Your task to perform on an android device: Search for good Korean restaurants Image 0: 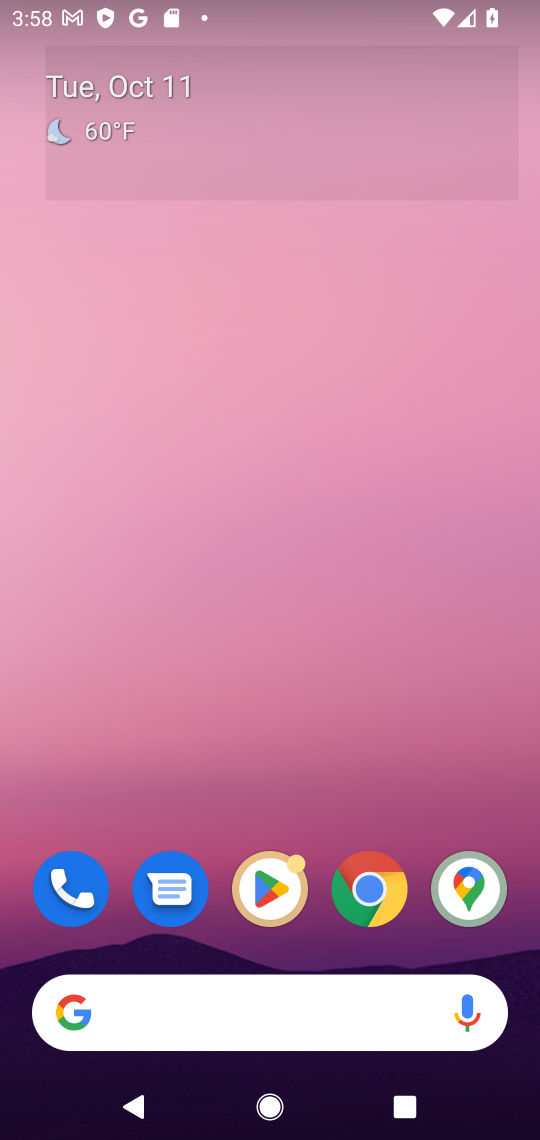
Step 0: drag from (380, 750) to (376, 309)
Your task to perform on an android device: Search for good Korean restaurants Image 1: 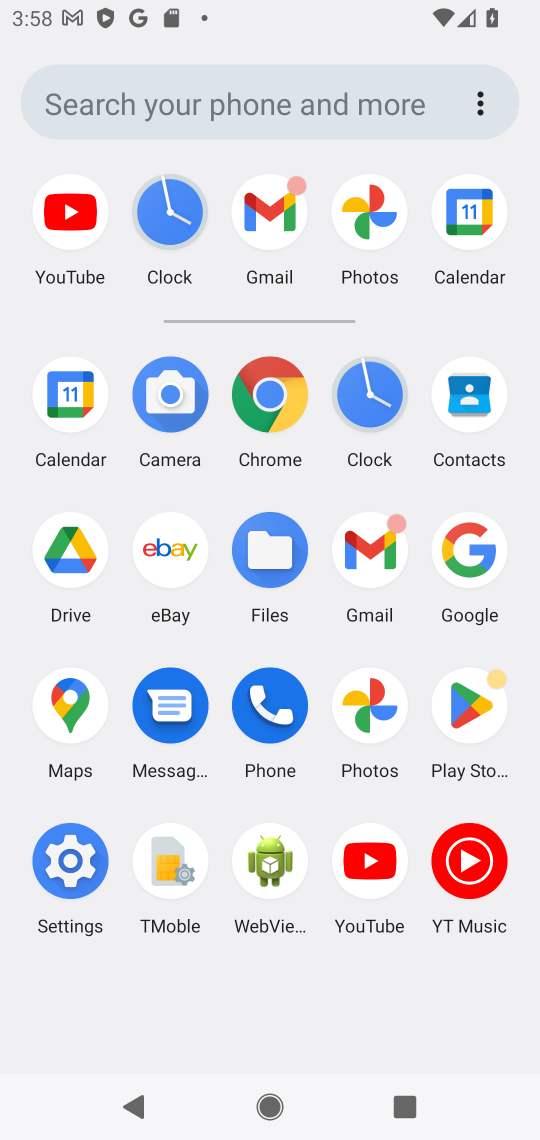
Step 1: click (456, 531)
Your task to perform on an android device: Search for good Korean restaurants Image 2: 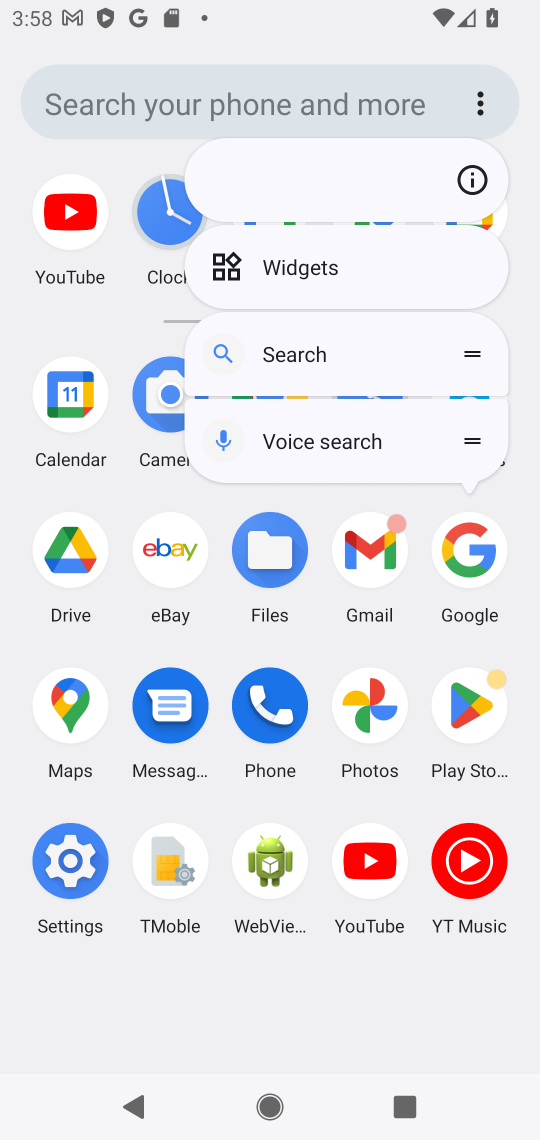
Step 2: click (466, 536)
Your task to perform on an android device: Search for good Korean restaurants Image 3: 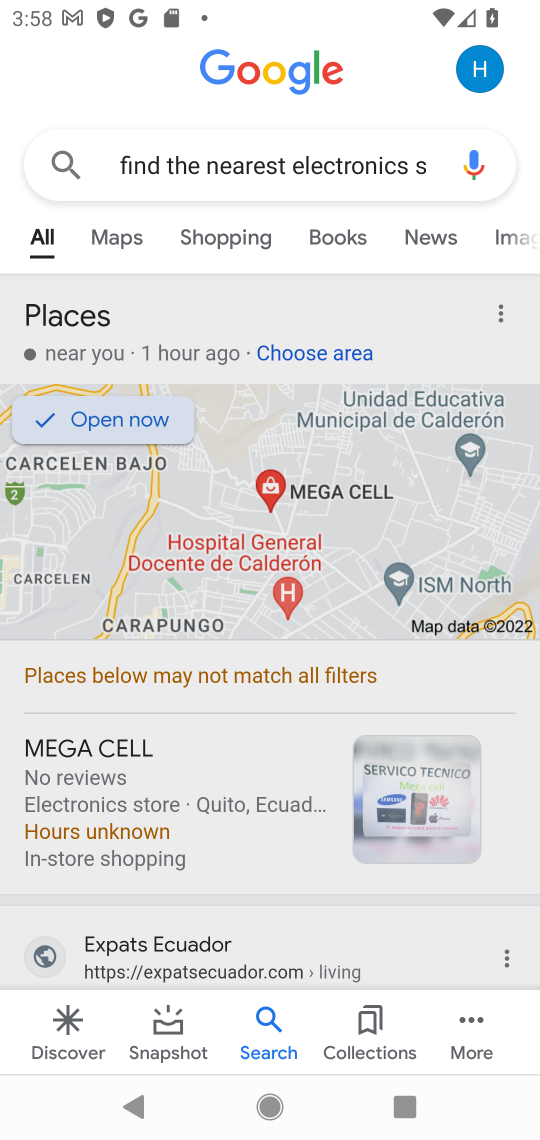
Step 3: click (318, 171)
Your task to perform on an android device: Search for good Korean restaurants Image 4: 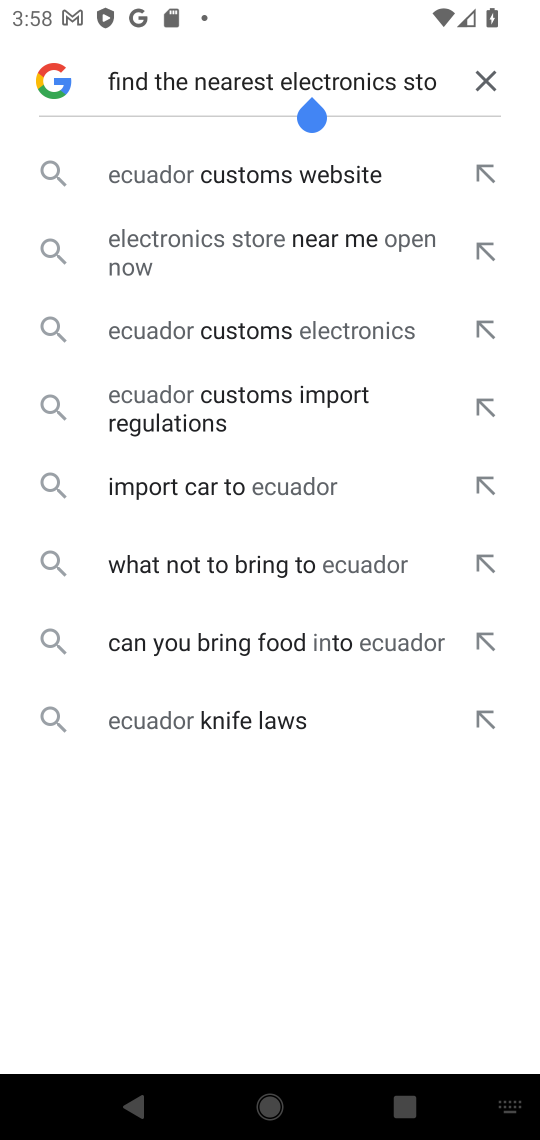
Step 4: click (487, 85)
Your task to perform on an android device: Search for good Korean restaurants Image 5: 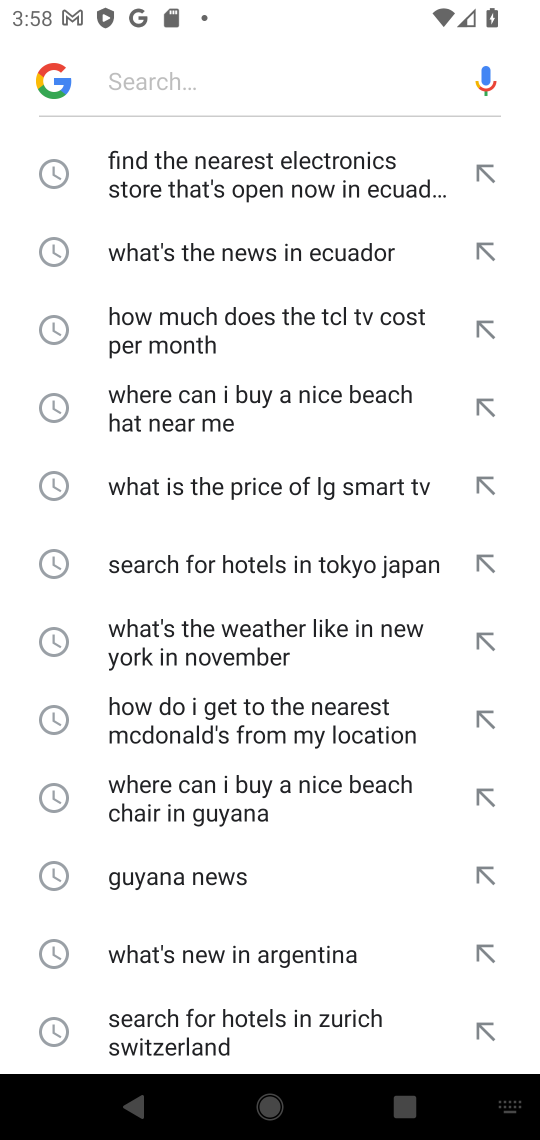
Step 5: click (249, 70)
Your task to perform on an android device: Search for good Korean restaurants Image 6: 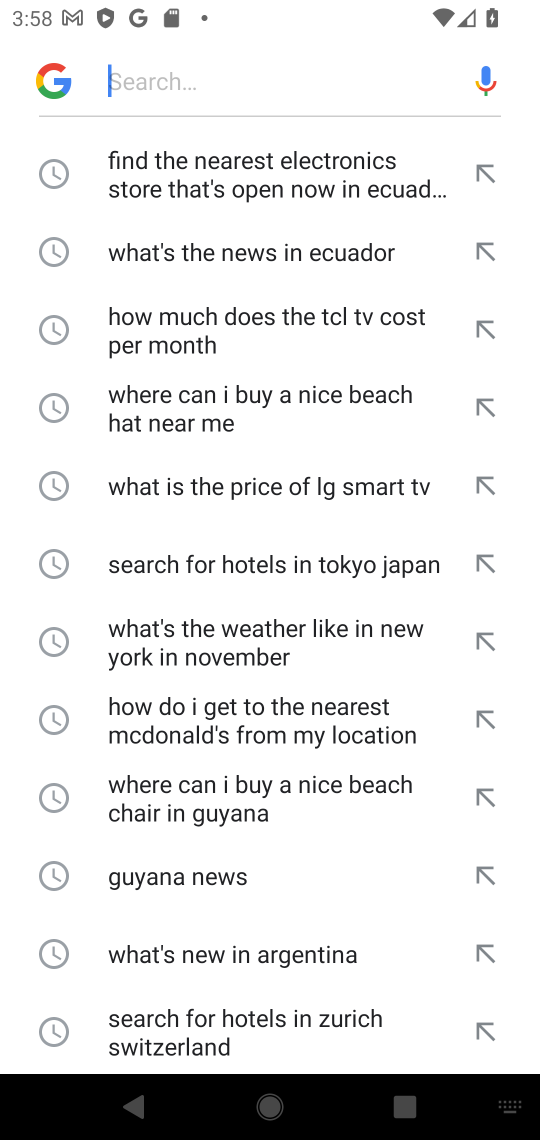
Step 6: type "Search for good Korean restaurants "
Your task to perform on an android device: Search for good Korean restaurants Image 7: 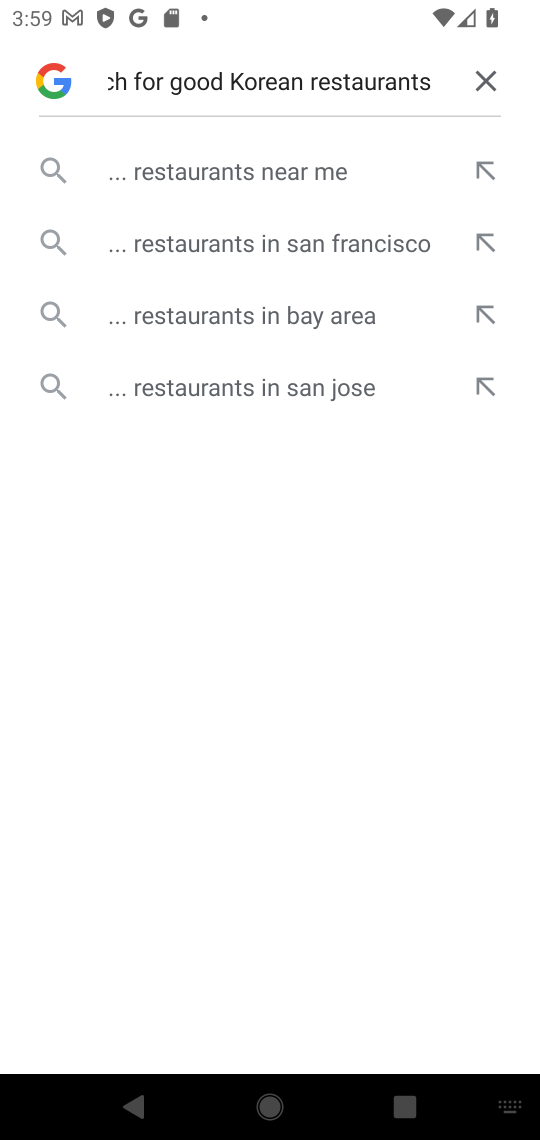
Step 7: click (237, 159)
Your task to perform on an android device: Search for good Korean restaurants Image 8: 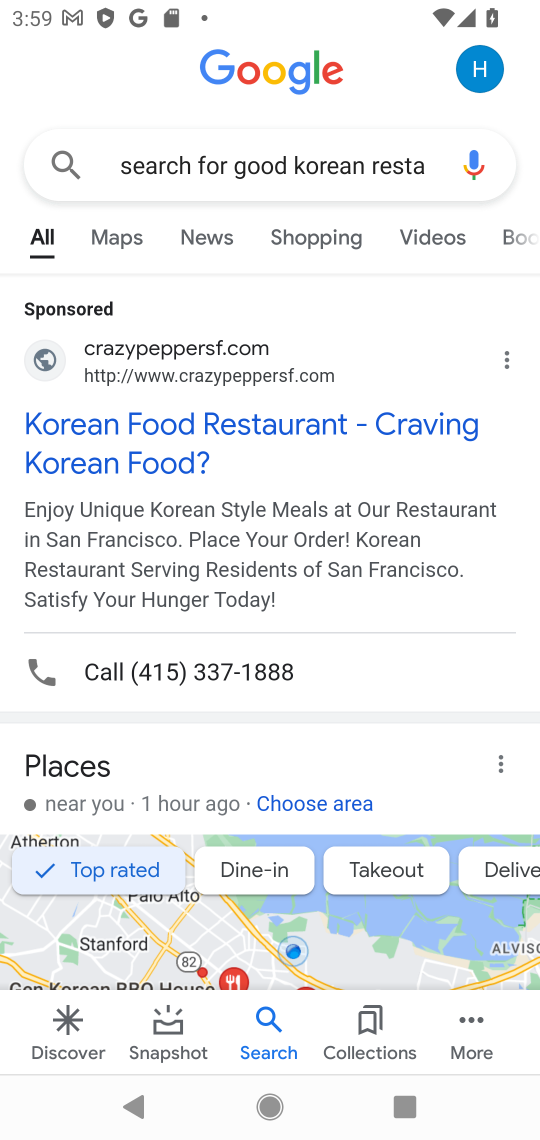
Step 8: click (155, 413)
Your task to perform on an android device: Search for good Korean restaurants Image 9: 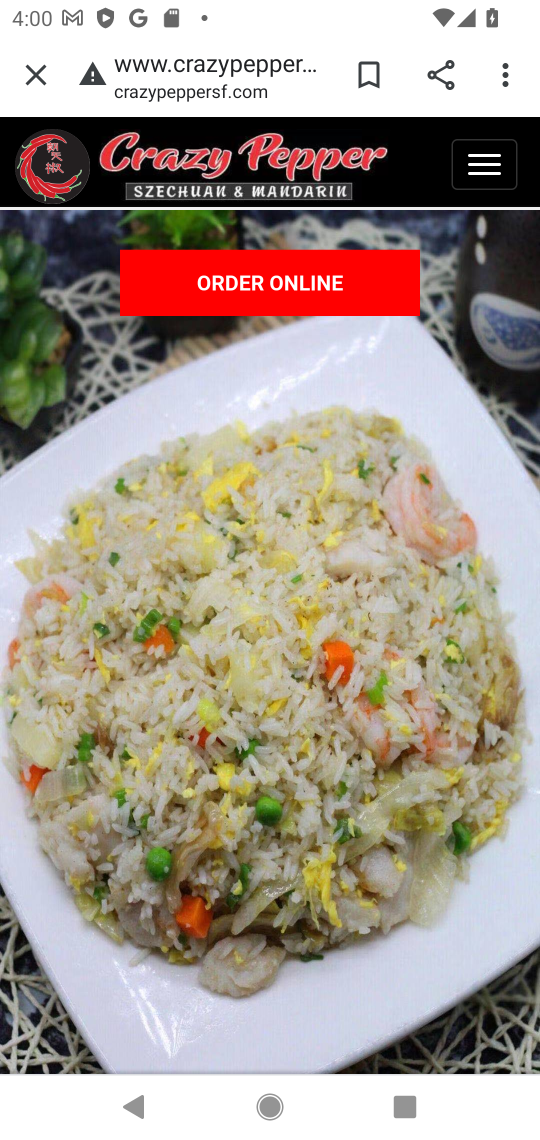
Step 9: task complete